Your task to perform on an android device: What's the weather going to be this weekend? Image 0: 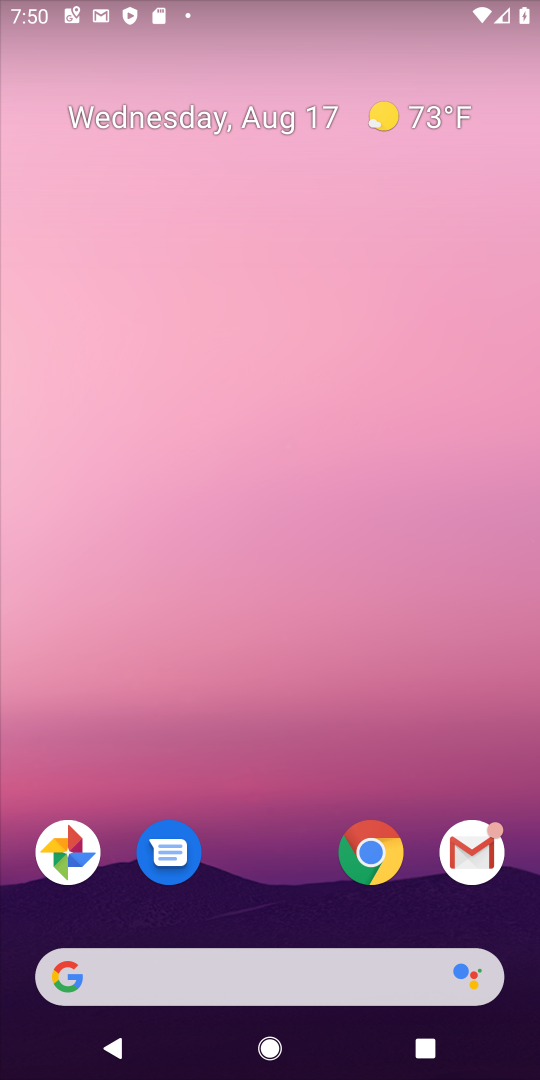
Step 0: click (187, 974)
Your task to perform on an android device: What's the weather going to be this weekend? Image 1: 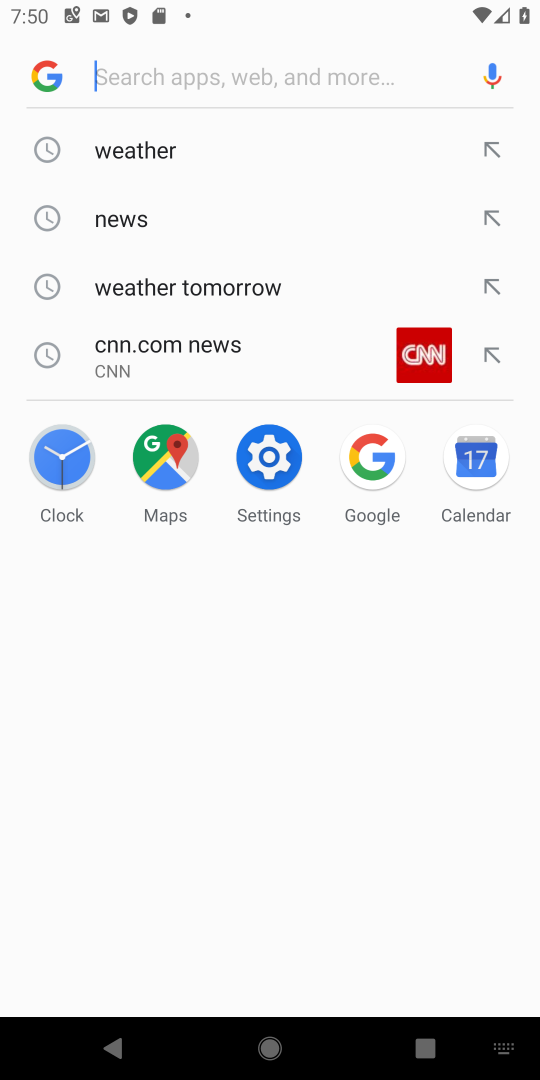
Step 1: click (119, 144)
Your task to perform on an android device: What's the weather going to be this weekend? Image 2: 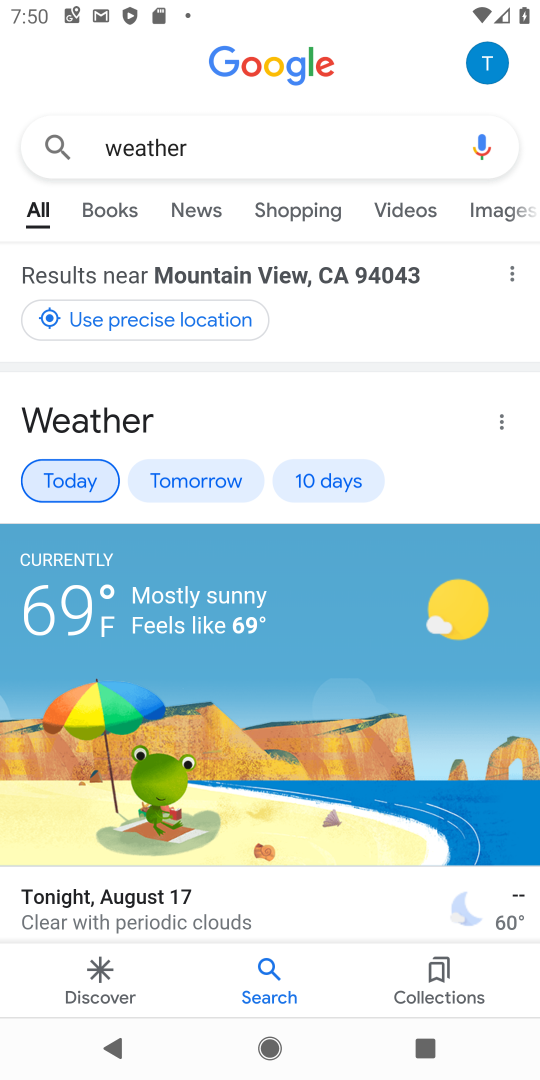
Step 2: click (323, 480)
Your task to perform on an android device: What's the weather going to be this weekend? Image 3: 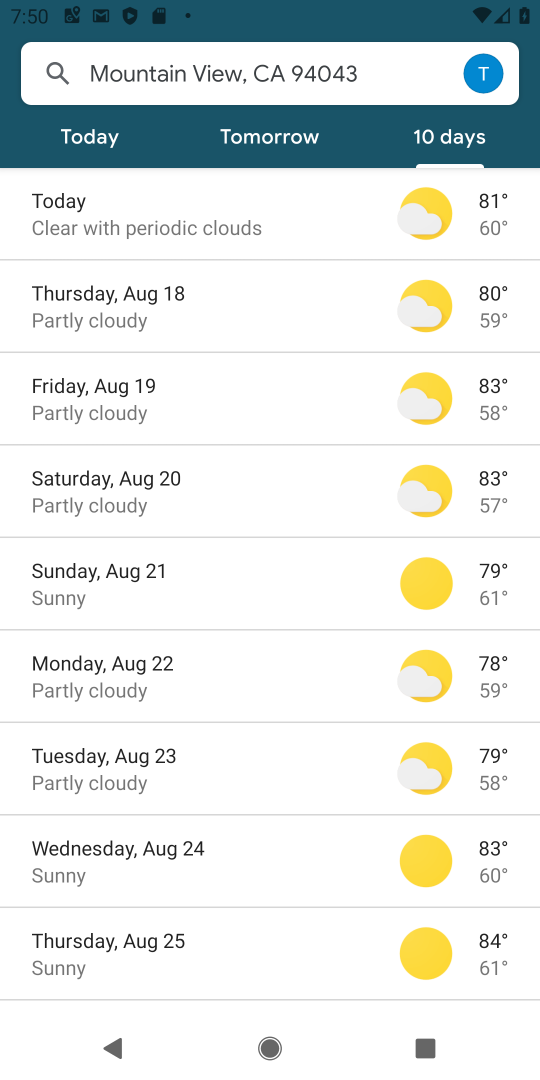
Step 3: task complete